Your task to perform on an android device: Open sound settings Image 0: 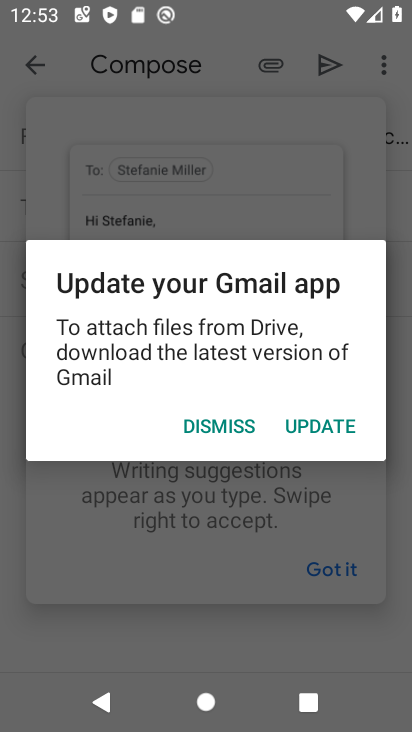
Step 0: press home button
Your task to perform on an android device: Open sound settings Image 1: 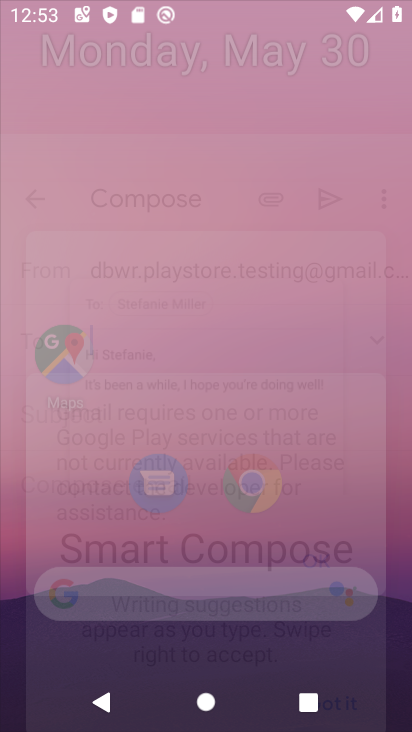
Step 1: drag from (204, 467) to (59, 424)
Your task to perform on an android device: Open sound settings Image 2: 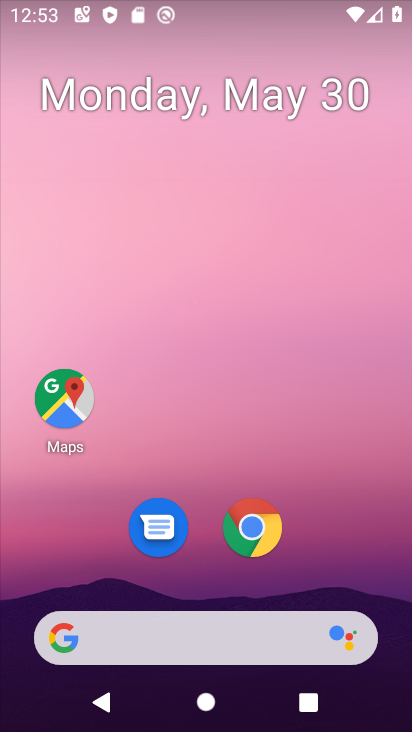
Step 2: drag from (214, 559) to (314, 4)
Your task to perform on an android device: Open sound settings Image 3: 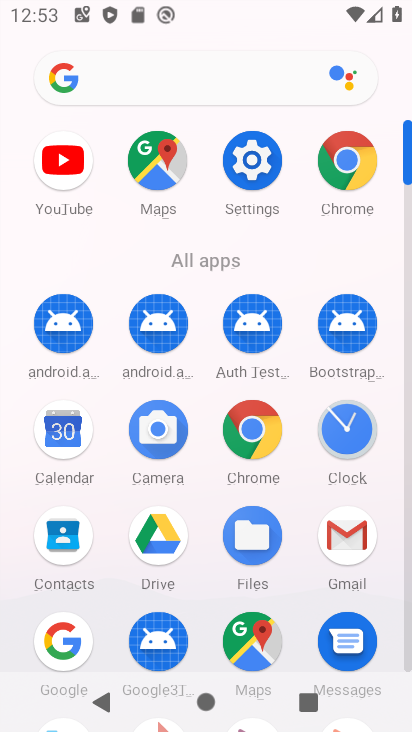
Step 3: click (265, 160)
Your task to perform on an android device: Open sound settings Image 4: 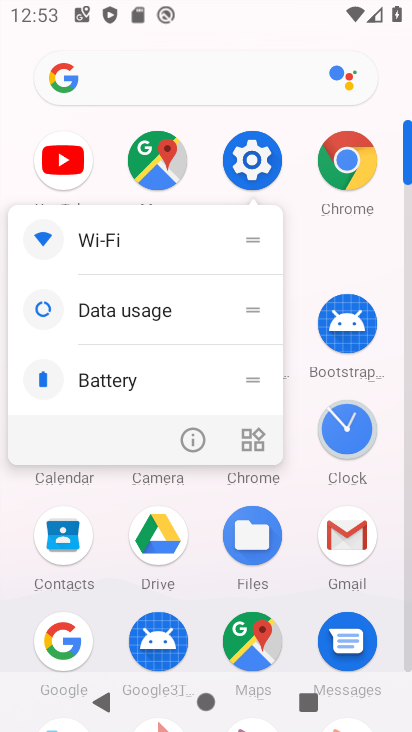
Step 4: click (188, 445)
Your task to perform on an android device: Open sound settings Image 5: 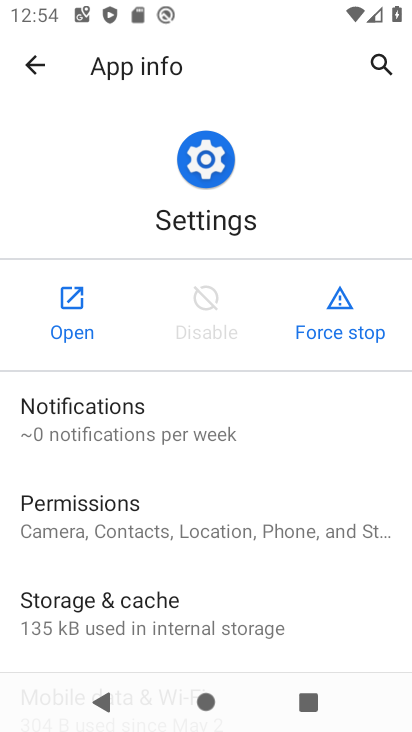
Step 5: click (92, 308)
Your task to perform on an android device: Open sound settings Image 6: 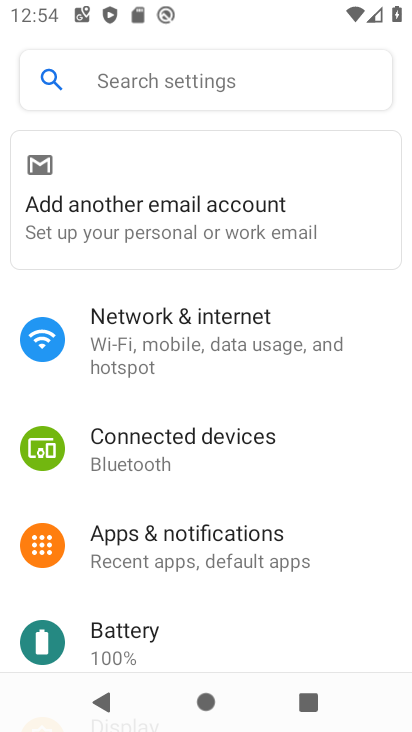
Step 6: drag from (202, 507) to (274, 162)
Your task to perform on an android device: Open sound settings Image 7: 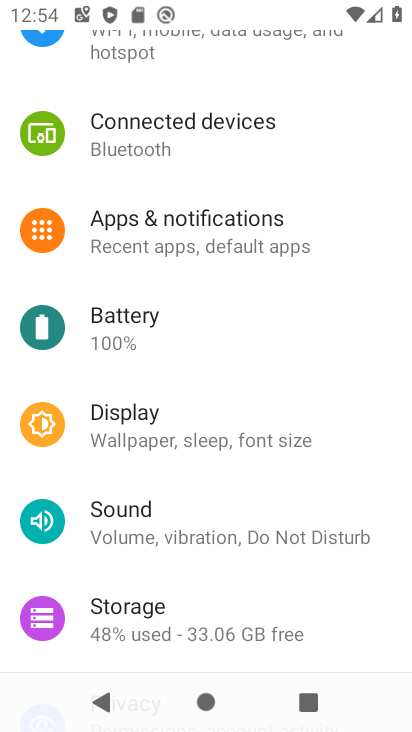
Step 7: click (154, 513)
Your task to perform on an android device: Open sound settings Image 8: 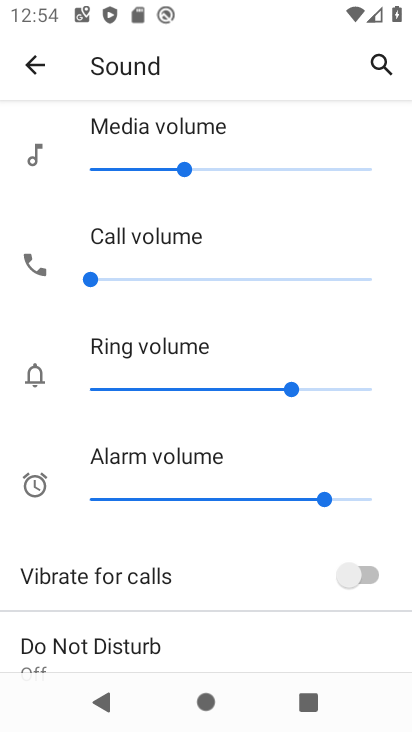
Step 8: task complete